Your task to perform on an android device: toggle translation in the chrome app Image 0: 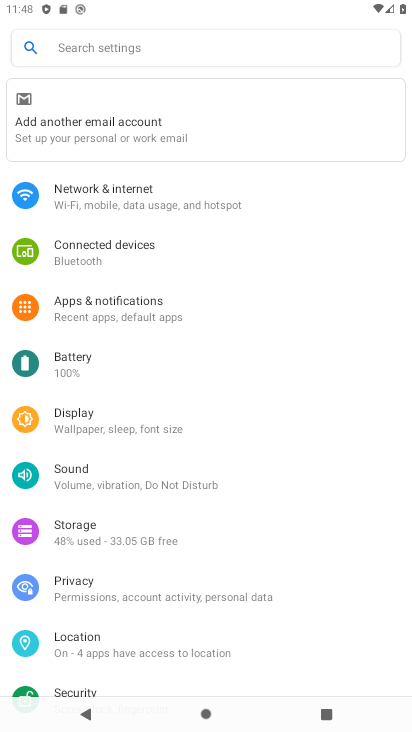
Step 0: press home button
Your task to perform on an android device: toggle translation in the chrome app Image 1: 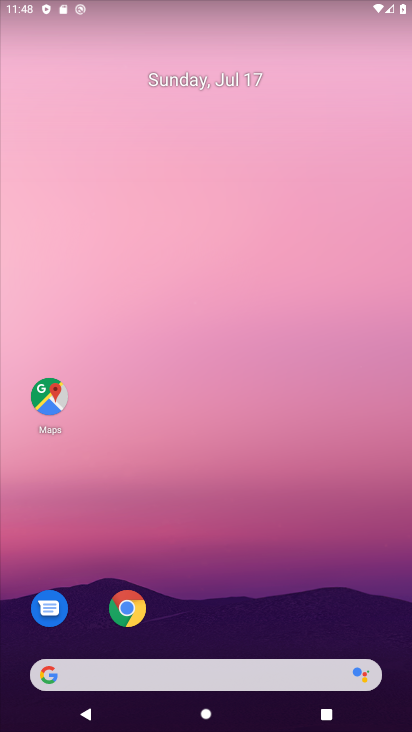
Step 1: click (127, 604)
Your task to perform on an android device: toggle translation in the chrome app Image 2: 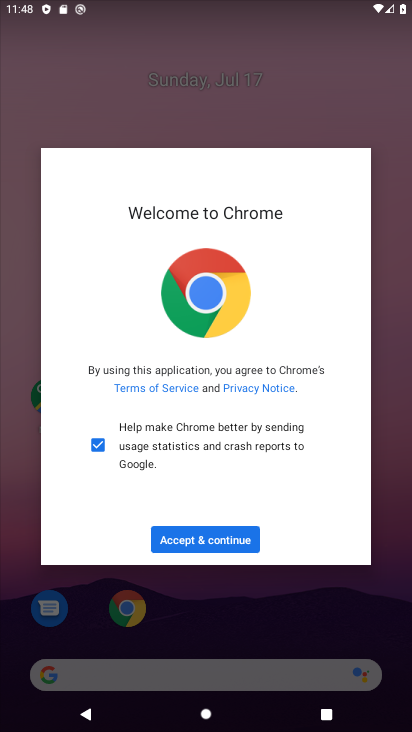
Step 2: click (226, 529)
Your task to perform on an android device: toggle translation in the chrome app Image 3: 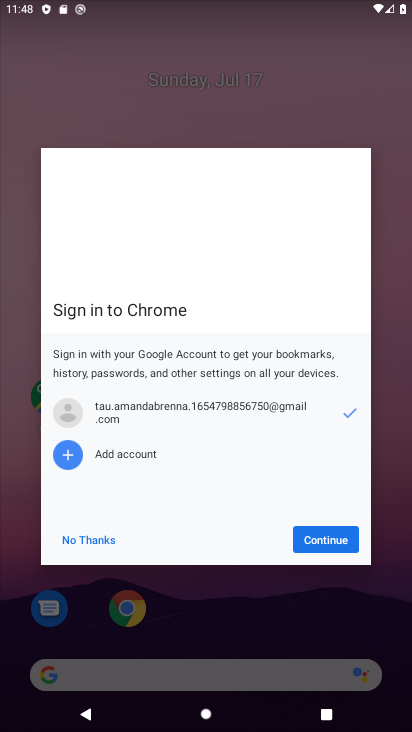
Step 3: click (314, 534)
Your task to perform on an android device: toggle translation in the chrome app Image 4: 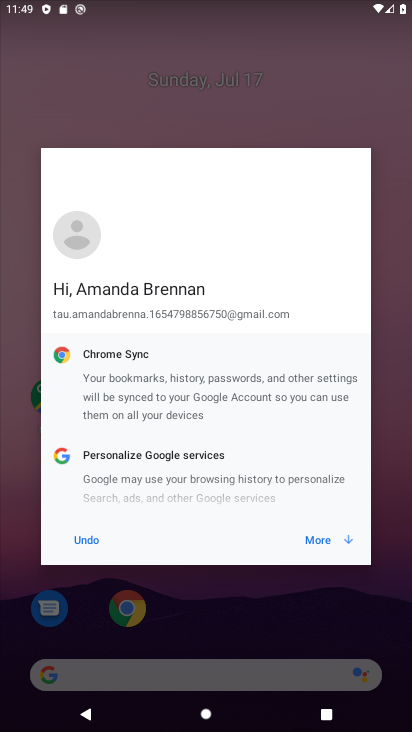
Step 4: click (314, 534)
Your task to perform on an android device: toggle translation in the chrome app Image 5: 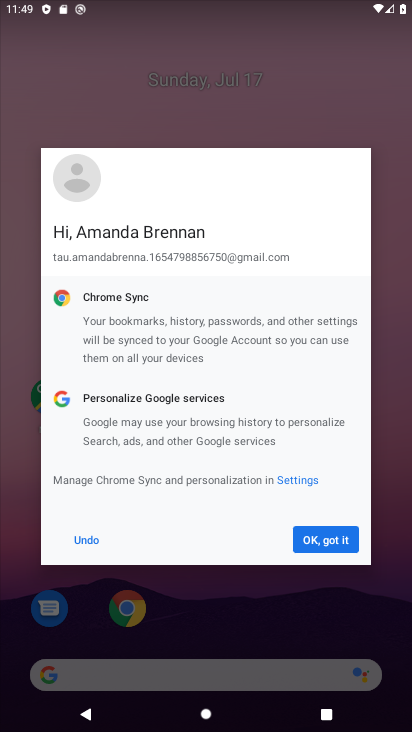
Step 5: click (314, 534)
Your task to perform on an android device: toggle translation in the chrome app Image 6: 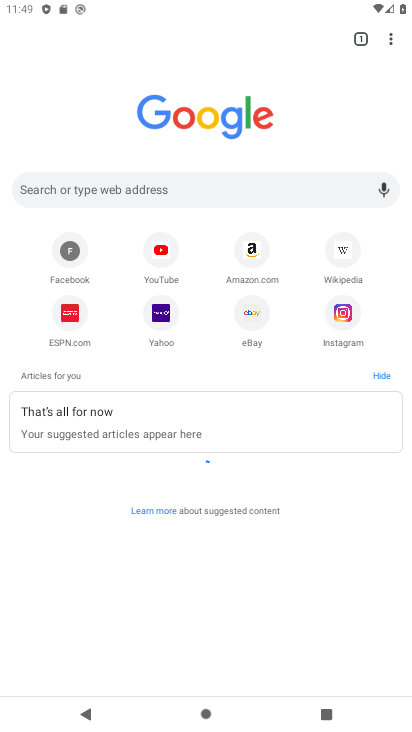
Step 6: click (392, 41)
Your task to perform on an android device: toggle translation in the chrome app Image 7: 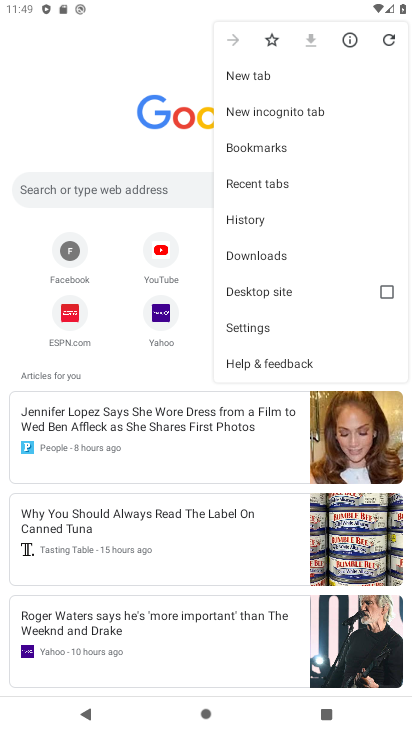
Step 7: click (261, 331)
Your task to perform on an android device: toggle translation in the chrome app Image 8: 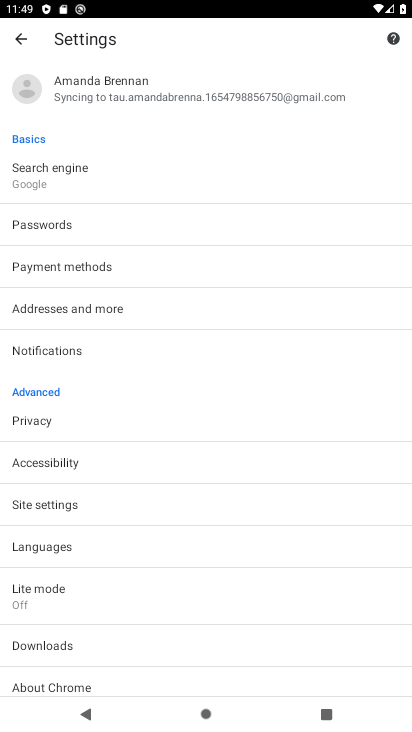
Step 8: click (76, 543)
Your task to perform on an android device: toggle translation in the chrome app Image 9: 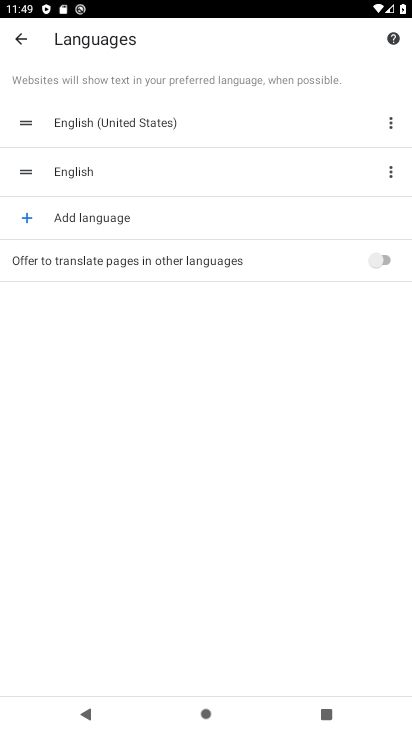
Step 9: click (377, 250)
Your task to perform on an android device: toggle translation in the chrome app Image 10: 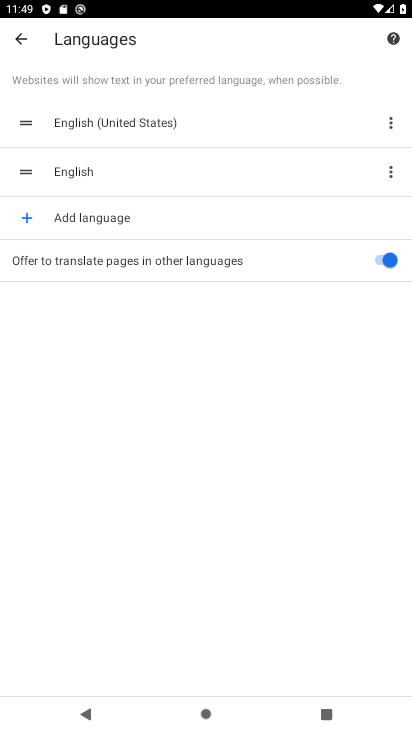
Step 10: task complete